Your task to perform on an android device: turn off priority inbox in the gmail app Image 0: 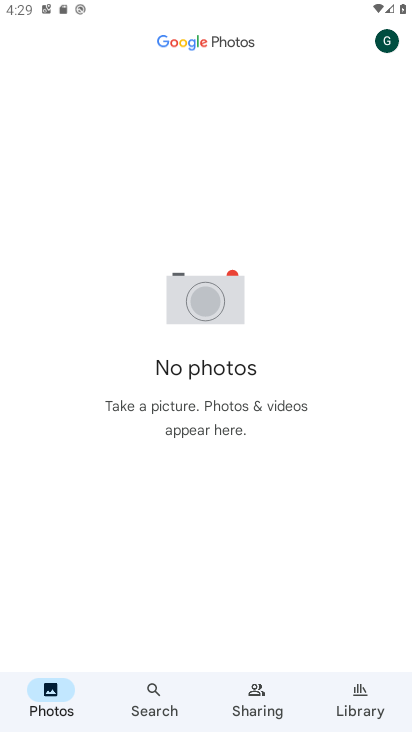
Step 0: press home button
Your task to perform on an android device: turn off priority inbox in the gmail app Image 1: 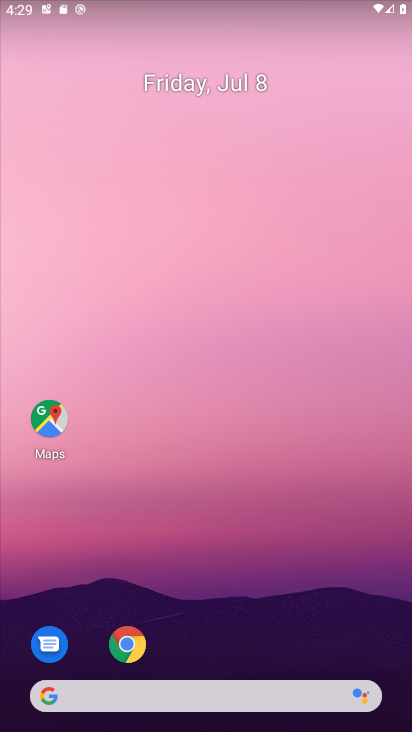
Step 1: drag from (356, 616) to (315, 190)
Your task to perform on an android device: turn off priority inbox in the gmail app Image 2: 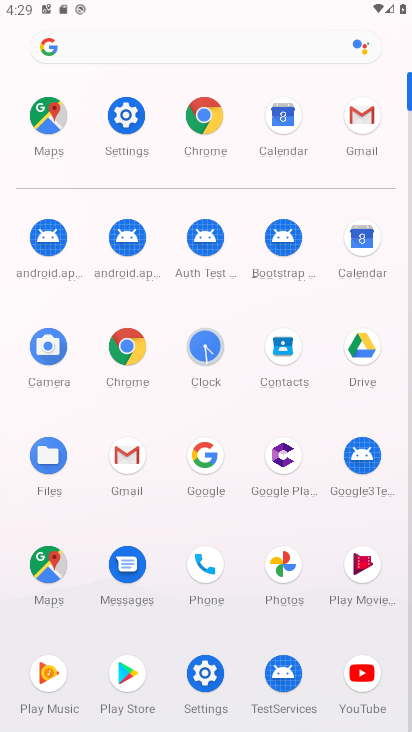
Step 2: click (126, 456)
Your task to perform on an android device: turn off priority inbox in the gmail app Image 3: 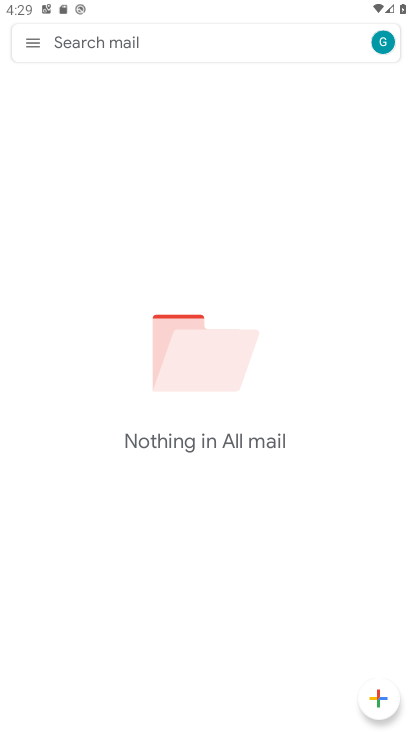
Step 3: click (22, 35)
Your task to perform on an android device: turn off priority inbox in the gmail app Image 4: 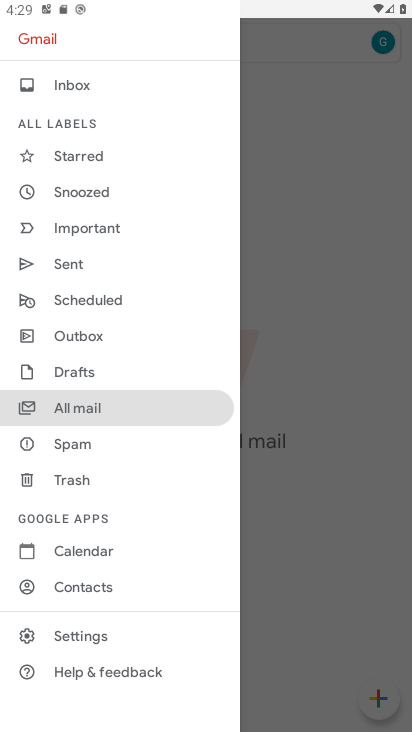
Step 4: click (91, 639)
Your task to perform on an android device: turn off priority inbox in the gmail app Image 5: 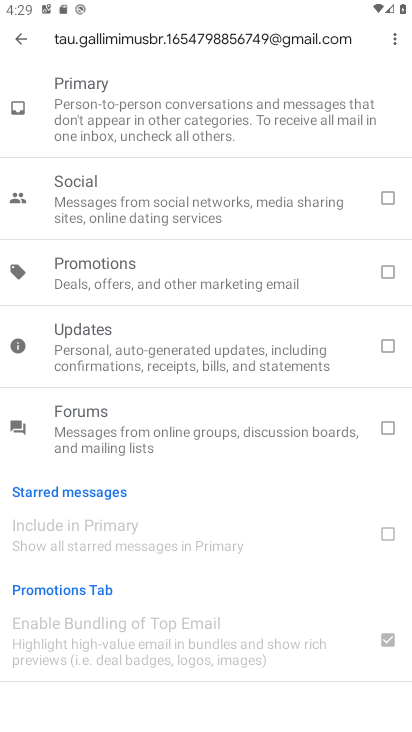
Step 5: press back button
Your task to perform on an android device: turn off priority inbox in the gmail app Image 6: 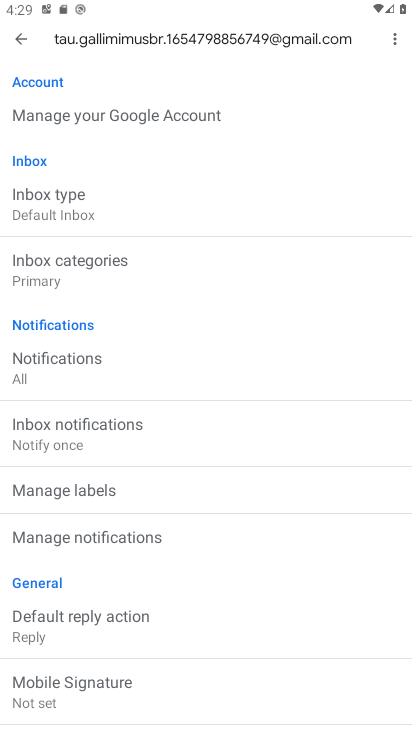
Step 6: click (27, 187)
Your task to perform on an android device: turn off priority inbox in the gmail app Image 7: 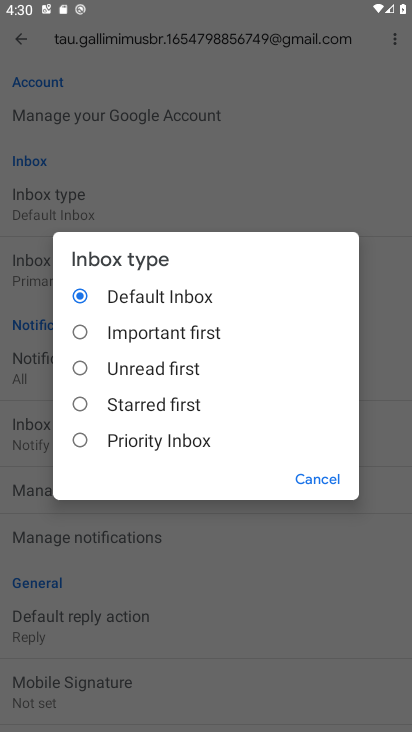
Step 7: task complete